Your task to perform on an android device: Go to ESPN.com Image 0: 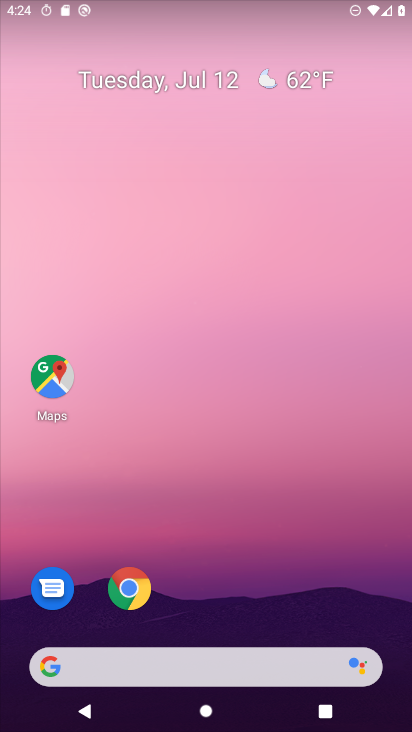
Step 0: click (133, 586)
Your task to perform on an android device: Go to ESPN.com Image 1: 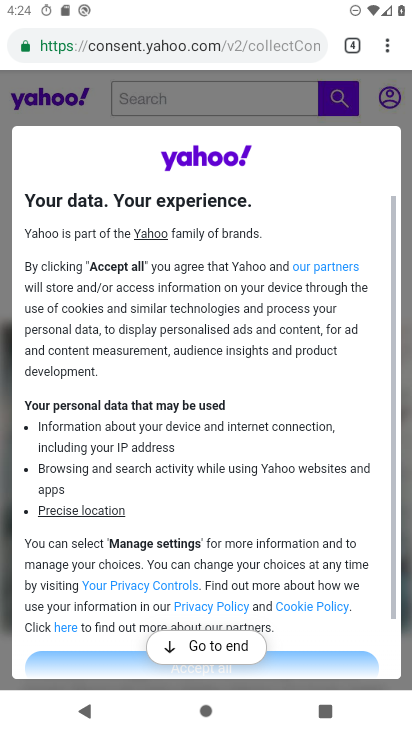
Step 1: click (227, 40)
Your task to perform on an android device: Go to ESPN.com Image 2: 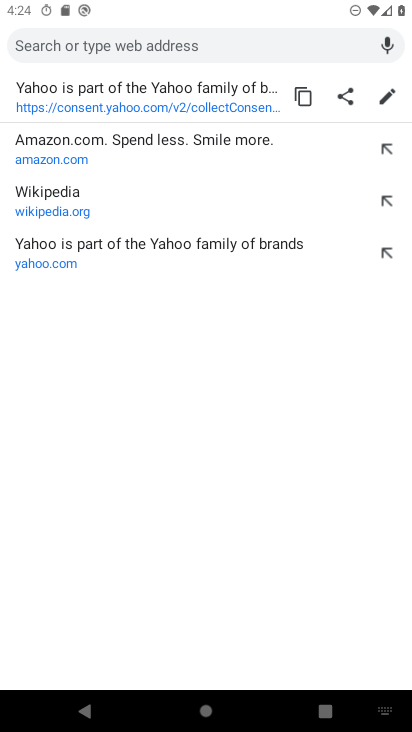
Step 2: type "ESPN.com"
Your task to perform on an android device: Go to ESPN.com Image 3: 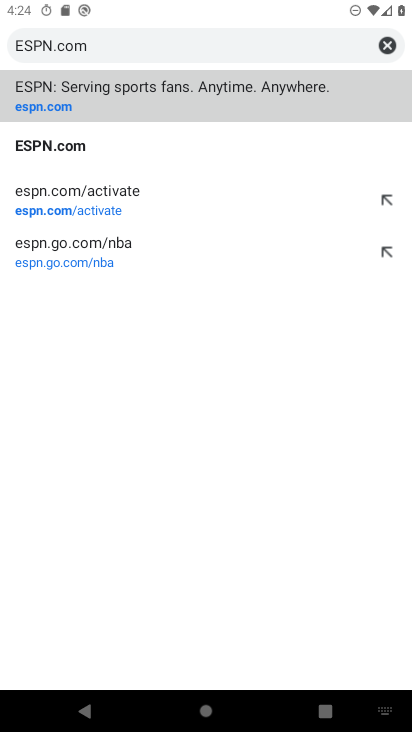
Step 3: click (172, 101)
Your task to perform on an android device: Go to ESPN.com Image 4: 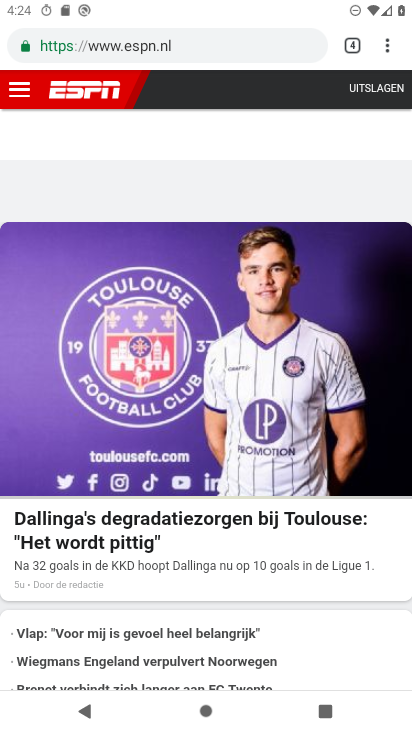
Step 4: task complete